Your task to perform on an android device: see creations saved in the google photos Image 0: 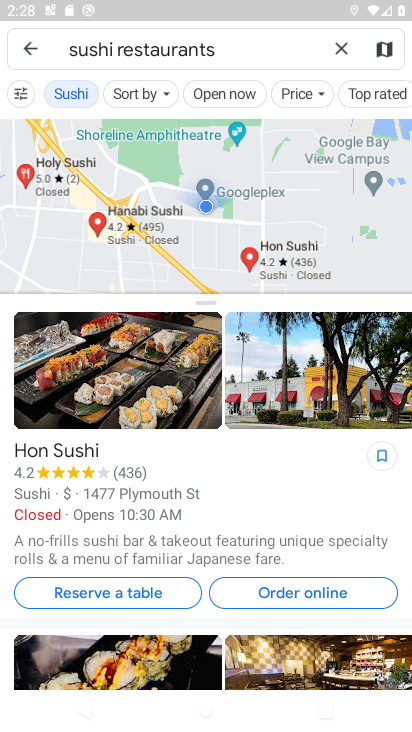
Step 0: press home button
Your task to perform on an android device: see creations saved in the google photos Image 1: 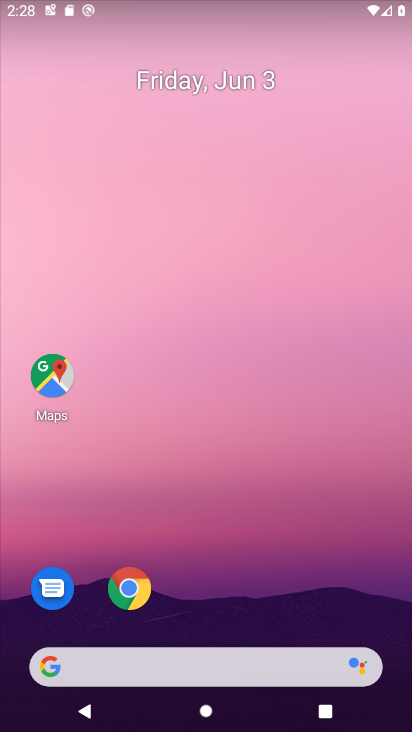
Step 1: drag from (196, 619) to (289, 10)
Your task to perform on an android device: see creations saved in the google photos Image 2: 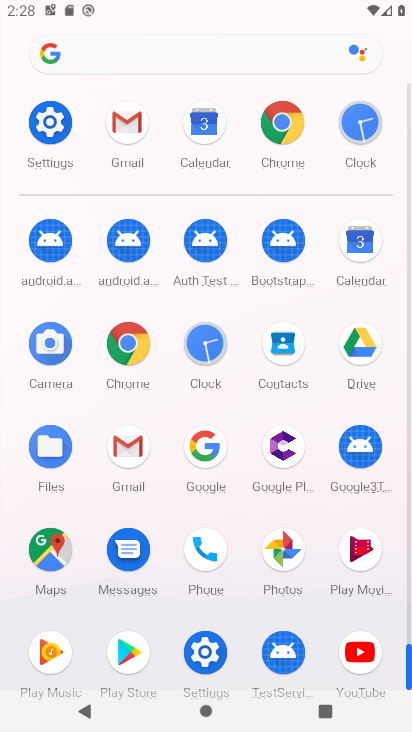
Step 2: click (275, 549)
Your task to perform on an android device: see creations saved in the google photos Image 3: 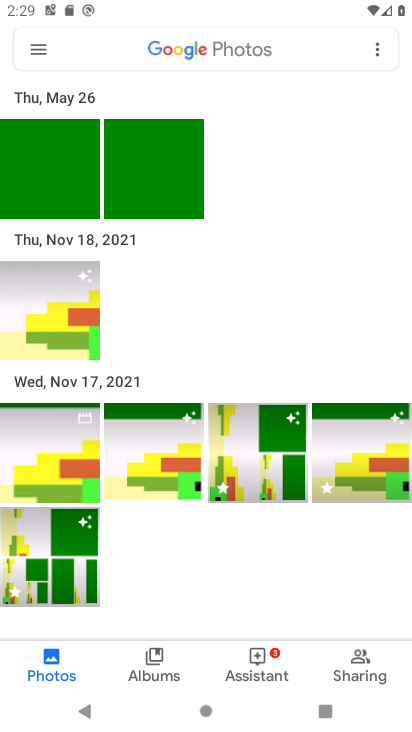
Step 3: task complete